Your task to perform on an android device: Open Chrome and go to the settings page Image 0: 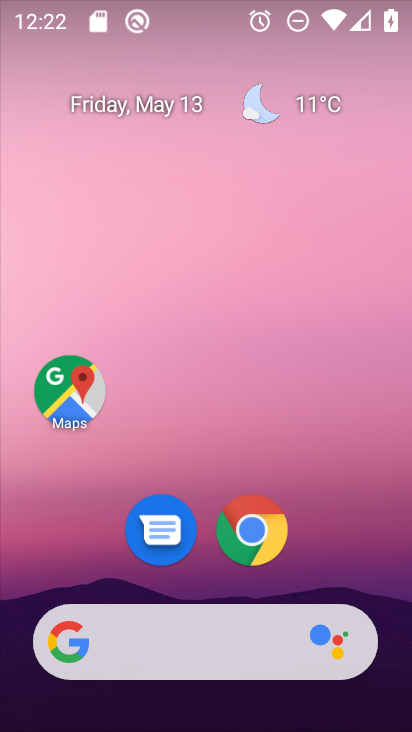
Step 0: click (251, 534)
Your task to perform on an android device: Open Chrome and go to the settings page Image 1: 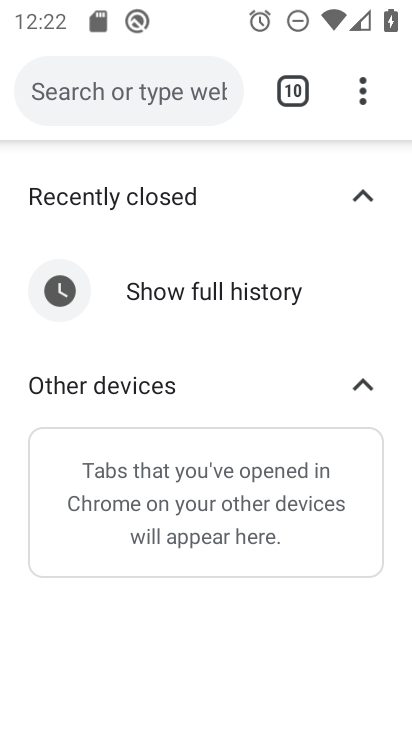
Step 1: task complete